Your task to perform on an android device: Open settings on Google Maps Image 0: 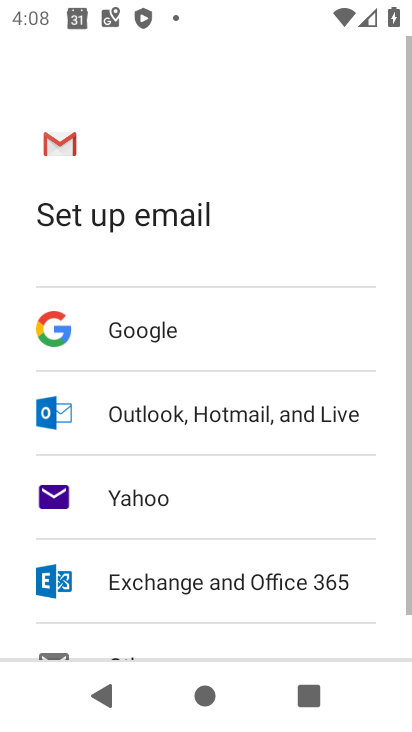
Step 0: press back button
Your task to perform on an android device: Open settings on Google Maps Image 1: 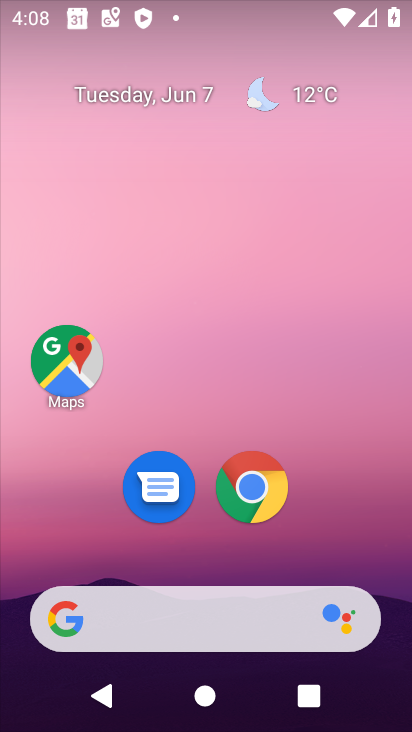
Step 1: click (69, 369)
Your task to perform on an android device: Open settings on Google Maps Image 2: 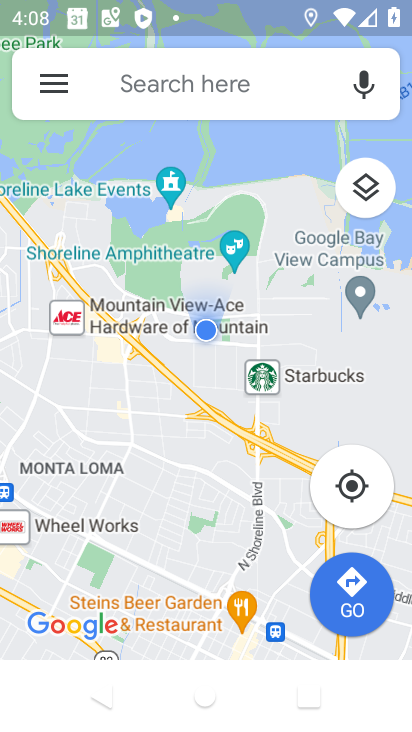
Step 2: click (57, 91)
Your task to perform on an android device: Open settings on Google Maps Image 3: 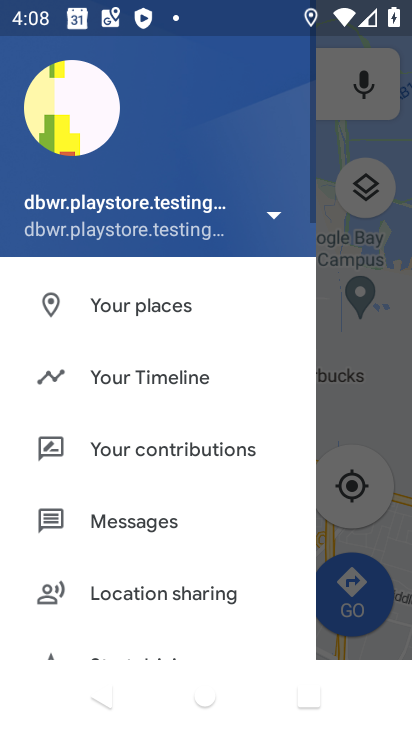
Step 3: drag from (136, 575) to (198, 153)
Your task to perform on an android device: Open settings on Google Maps Image 4: 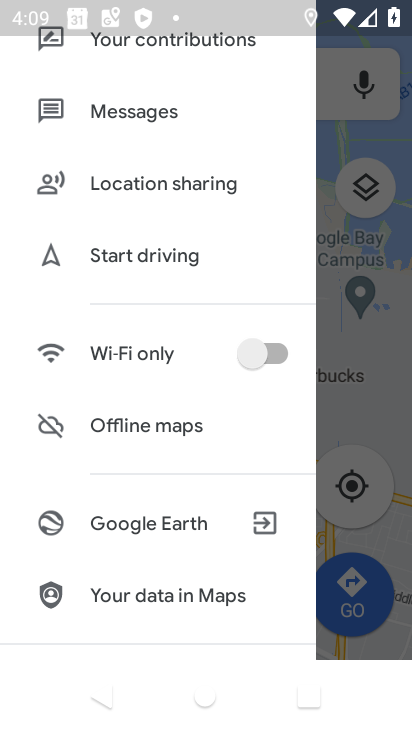
Step 4: drag from (142, 586) to (186, 187)
Your task to perform on an android device: Open settings on Google Maps Image 5: 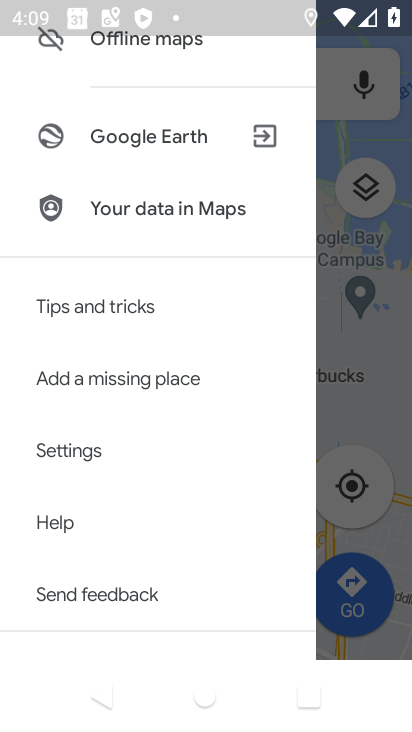
Step 5: click (71, 456)
Your task to perform on an android device: Open settings on Google Maps Image 6: 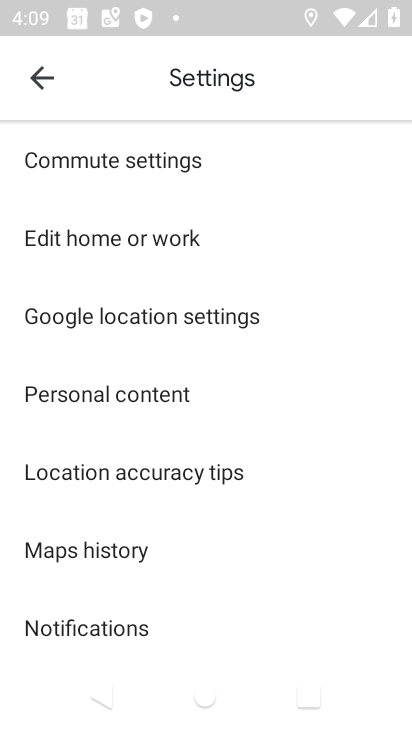
Step 6: task complete